Your task to perform on an android device: check android version Image 0: 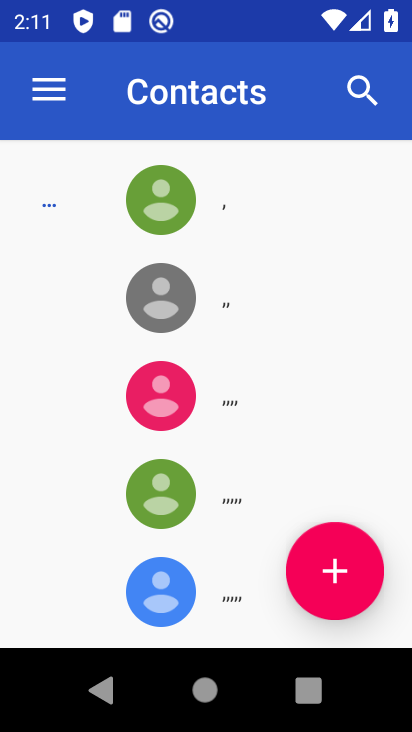
Step 0: press home button
Your task to perform on an android device: check android version Image 1: 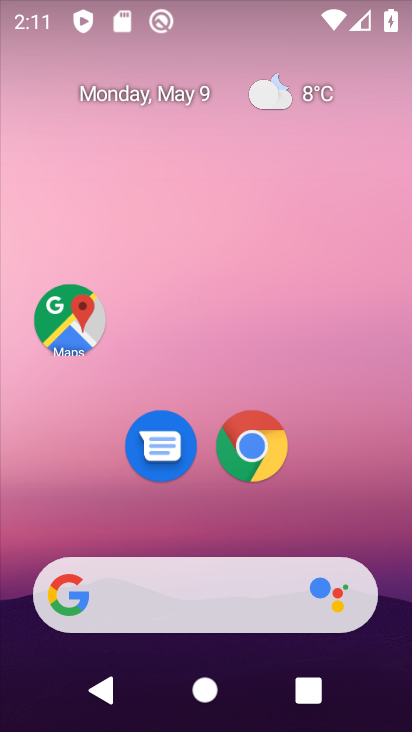
Step 1: drag from (357, 518) to (111, 143)
Your task to perform on an android device: check android version Image 2: 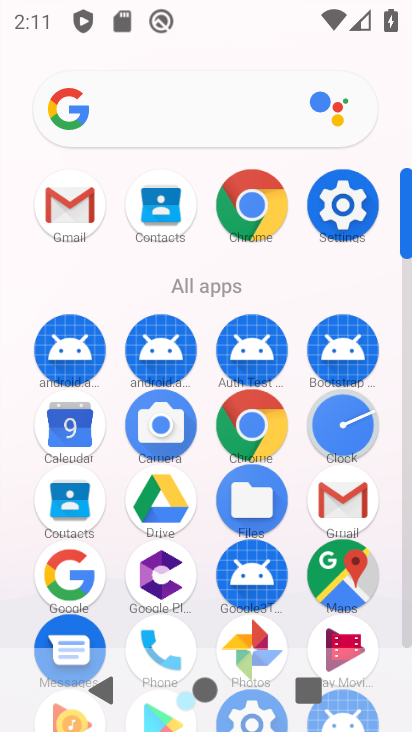
Step 2: click (354, 218)
Your task to perform on an android device: check android version Image 3: 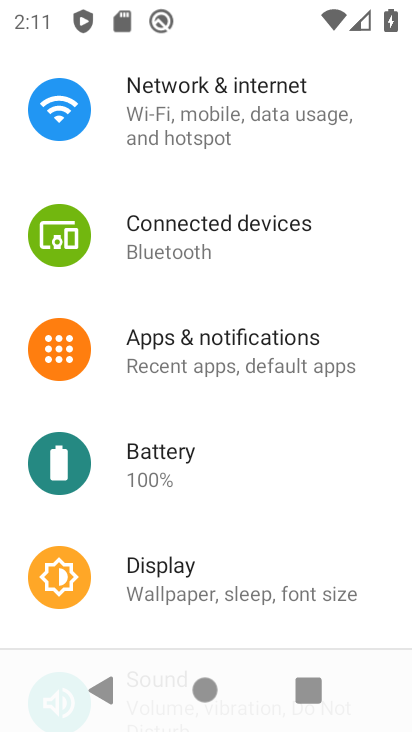
Step 3: drag from (211, 603) to (202, 173)
Your task to perform on an android device: check android version Image 4: 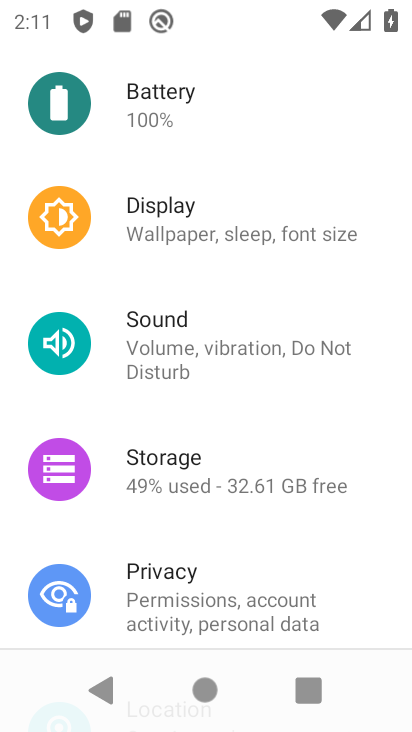
Step 4: drag from (273, 613) to (289, 236)
Your task to perform on an android device: check android version Image 5: 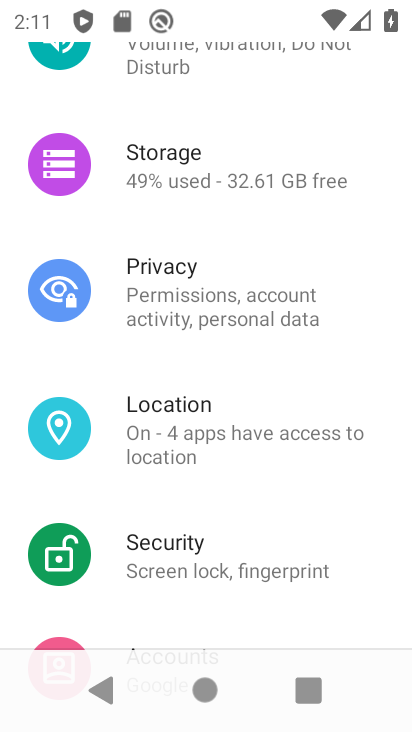
Step 5: drag from (202, 558) to (188, 141)
Your task to perform on an android device: check android version Image 6: 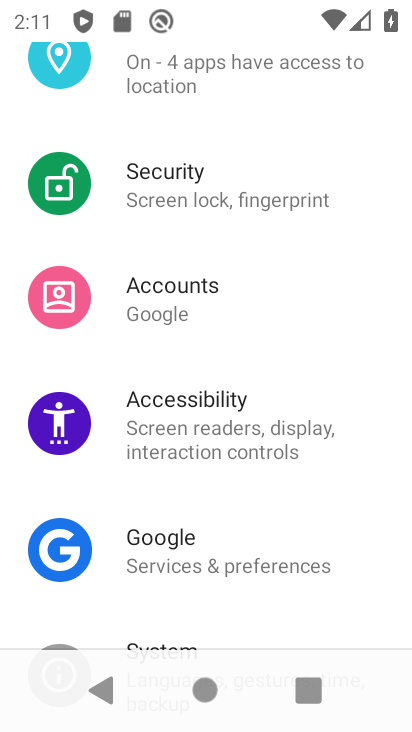
Step 6: drag from (149, 597) to (195, 280)
Your task to perform on an android device: check android version Image 7: 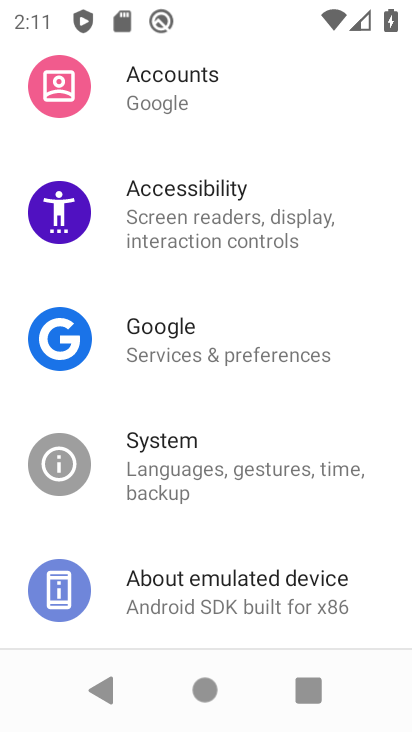
Step 7: click (143, 607)
Your task to perform on an android device: check android version Image 8: 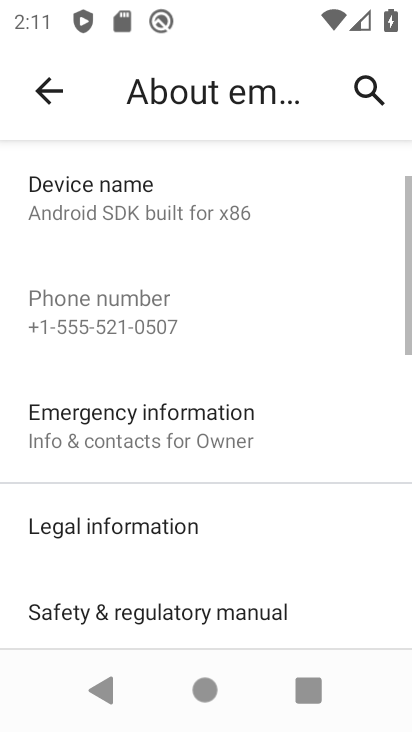
Step 8: drag from (143, 607) to (114, 229)
Your task to perform on an android device: check android version Image 9: 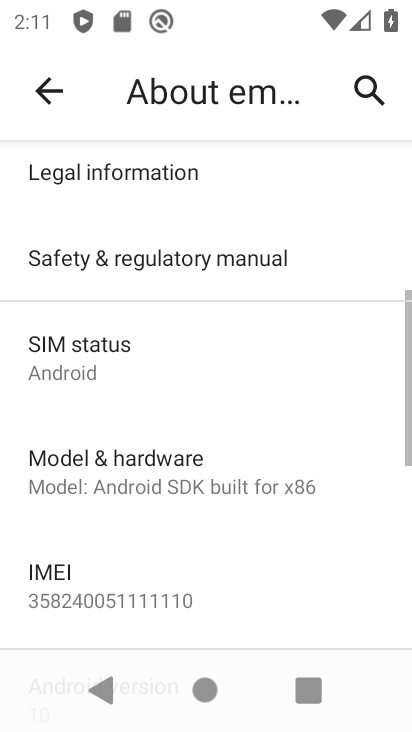
Step 9: drag from (159, 595) to (199, 302)
Your task to perform on an android device: check android version Image 10: 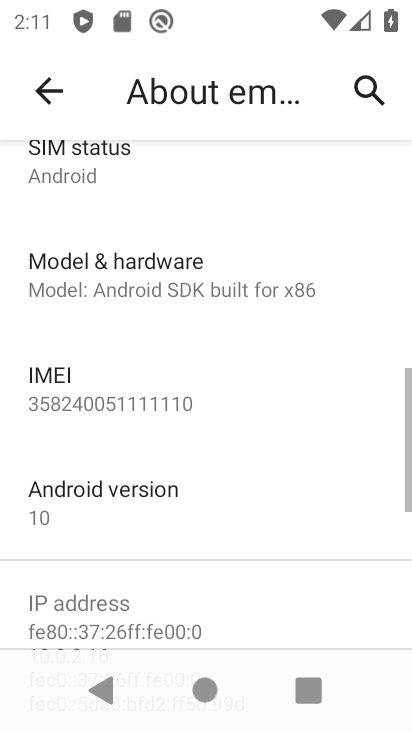
Step 10: drag from (200, 560) to (196, 284)
Your task to perform on an android device: check android version Image 11: 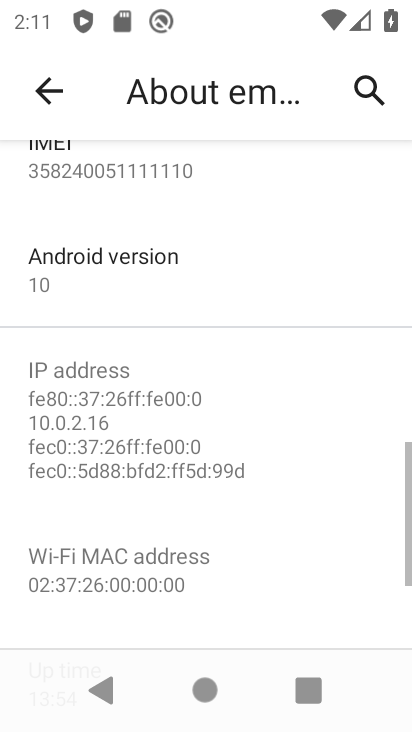
Step 11: click (135, 282)
Your task to perform on an android device: check android version Image 12: 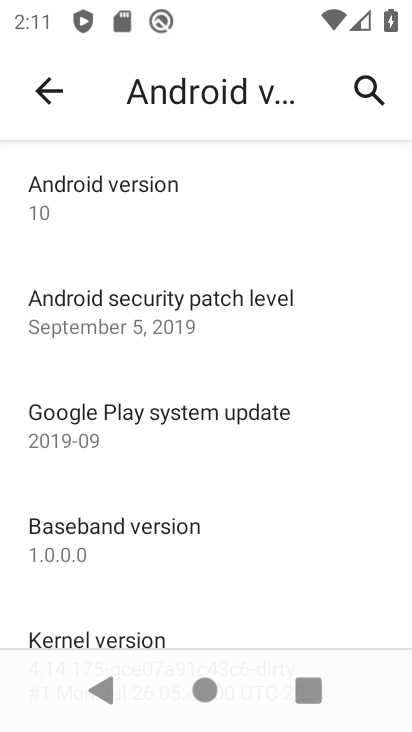
Step 12: task complete